Your task to perform on an android device: toggle data saver in the chrome app Image 0: 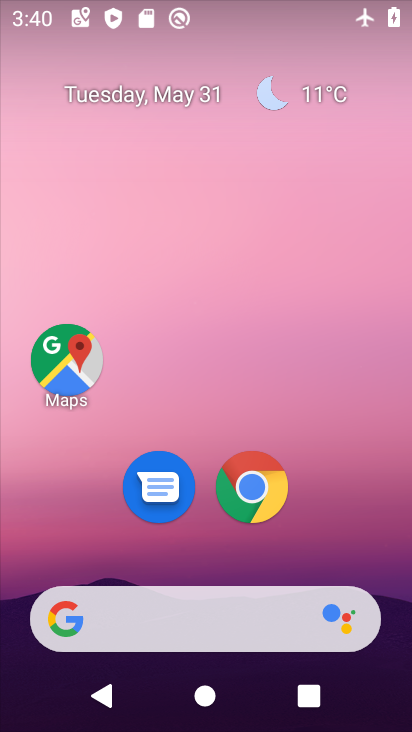
Step 0: click (252, 486)
Your task to perform on an android device: toggle data saver in the chrome app Image 1: 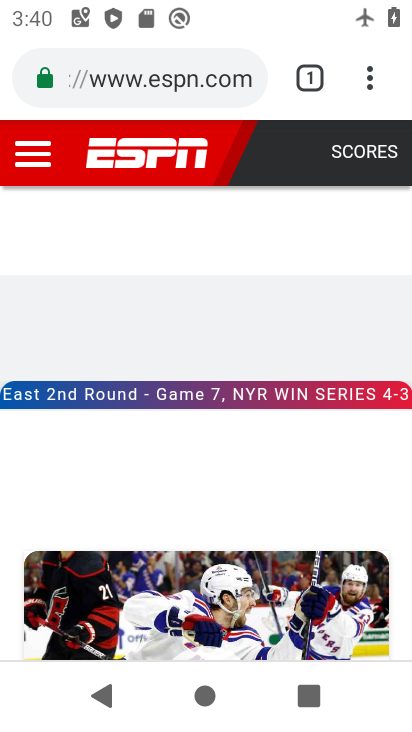
Step 1: click (367, 77)
Your task to perform on an android device: toggle data saver in the chrome app Image 2: 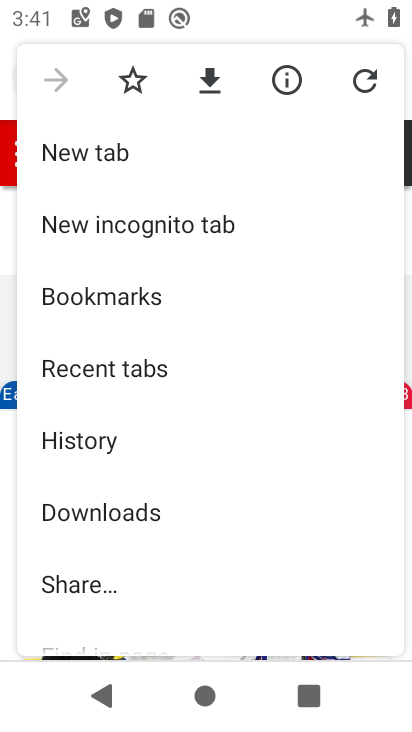
Step 2: drag from (135, 479) to (202, 369)
Your task to perform on an android device: toggle data saver in the chrome app Image 3: 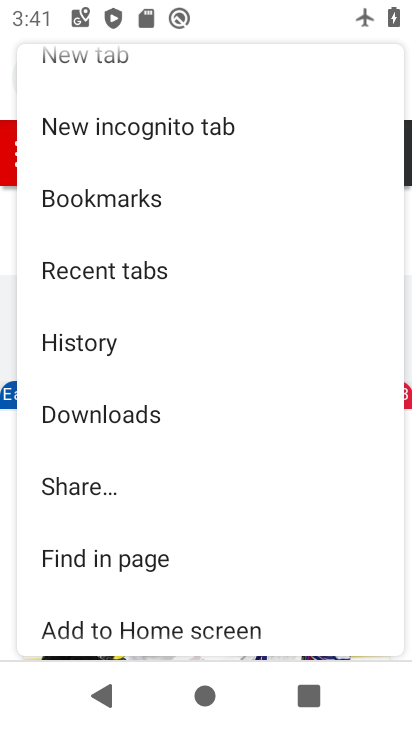
Step 3: drag from (143, 518) to (183, 428)
Your task to perform on an android device: toggle data saver in the chrome app Image 4: 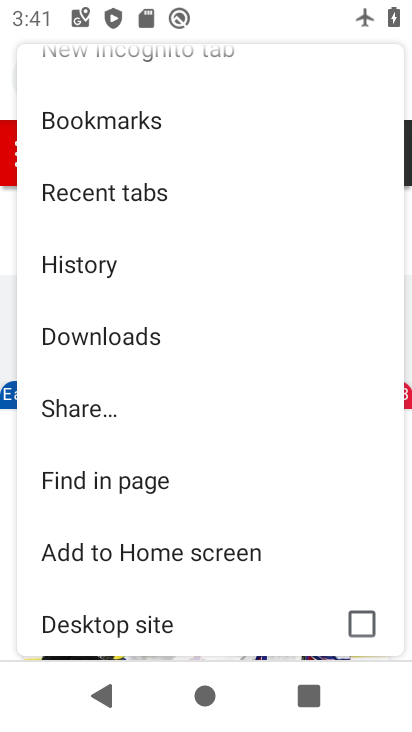
Step 4: drag from (129, 521) to (223, 413)
Your task to perform on an android device: toggle data saver in the chrome app Image 5: 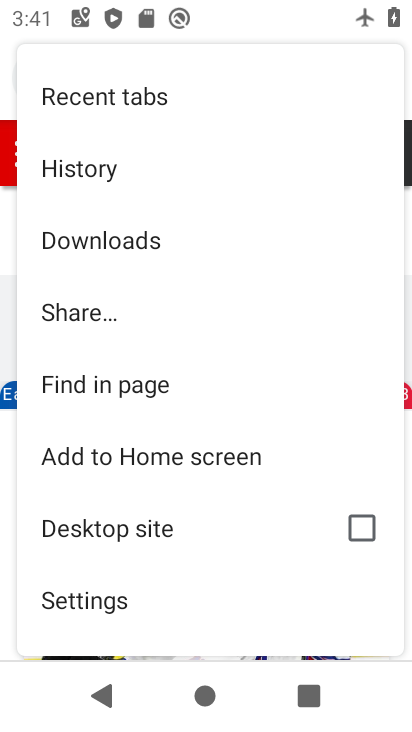
Step 5: drag from (135, 493) to (207, 385)
Your task to perform on an android device: toggle data saver in the chrome app Image 6: 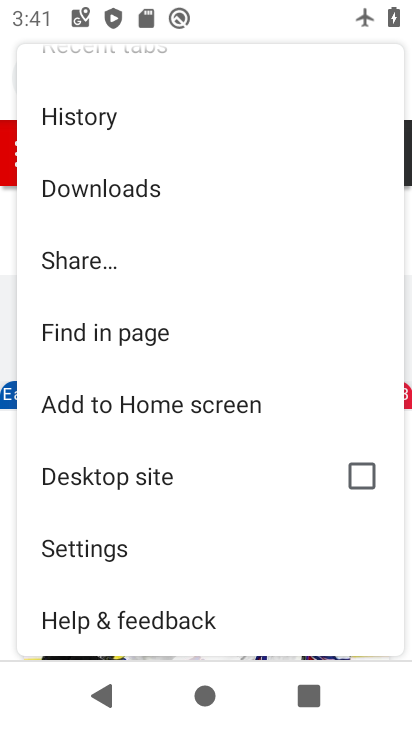
Step 6: click (105, 562)
Your task to perform on an android device: toggle data saver in the chrome app Image 7: 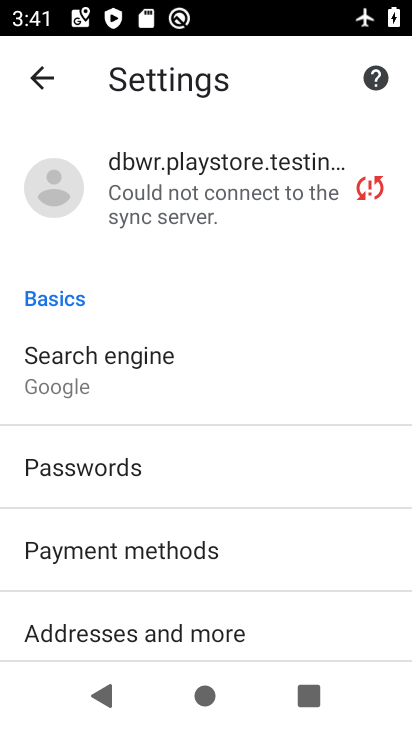
Step 7: drag from (126, 488) to (226, 362)
Your task to perform on an android device: toggle data saver in the chrome app Image 8: 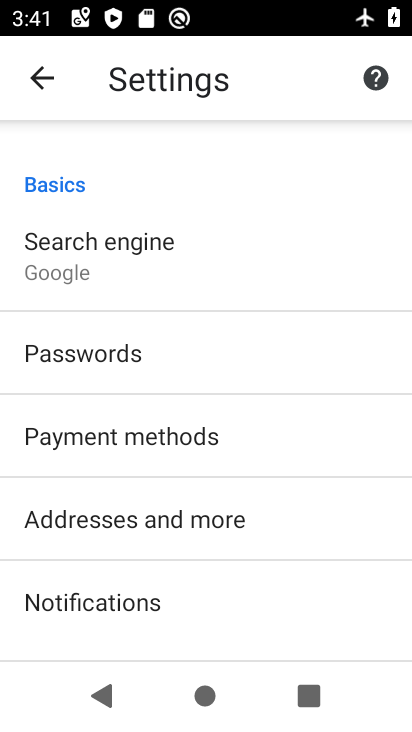
Step 8: drag from (145, 465) to (238, 357)
Your task to perform on an android device: toggle data saver in the chrome app Image 9: 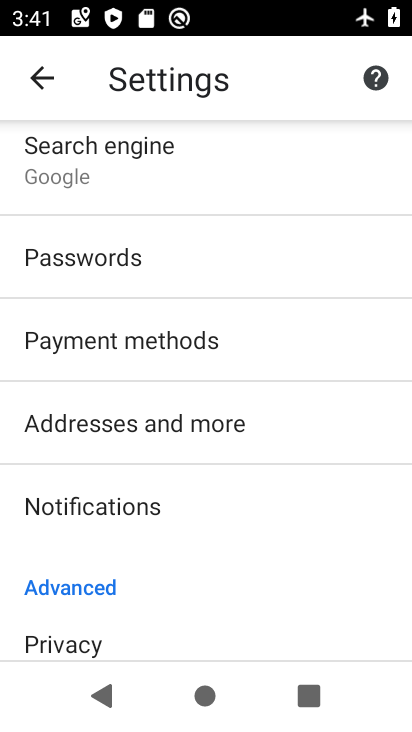
Step 9: drag from (115, 540) to (201, 408)
Your task to perform on an android device: toggle data saver in the chrome app Image 10: 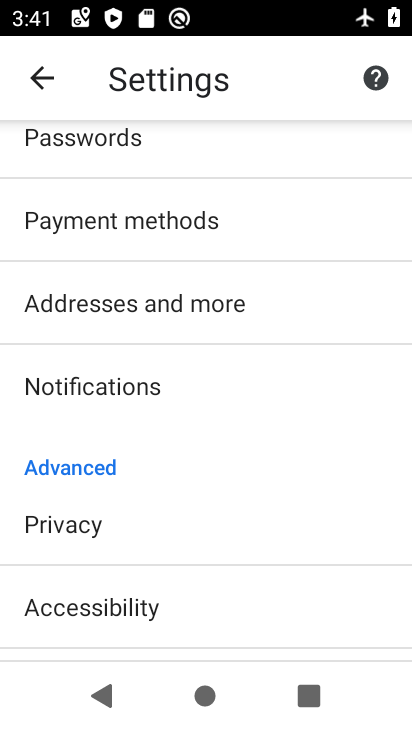
Step 10: drag from (115, 535) to (182, 408)
Your task to perform on an android device: toggle data saver in the chrome app Image 11: 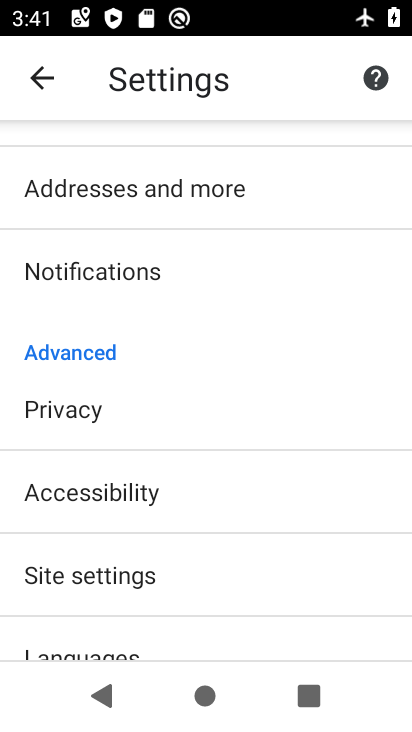
Step 11: drag from (124, 526) to (212, 416)
Your task to perform on an android device: toggle data saver in the chrome app Image 12: 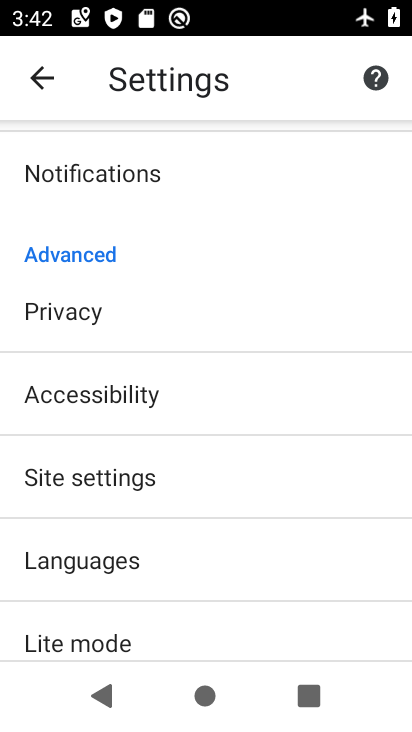
Step 12: drag from (146, 608) to (219, 513)
Your task to perform on an android device: toggle data saver in the chrome app Image 13: 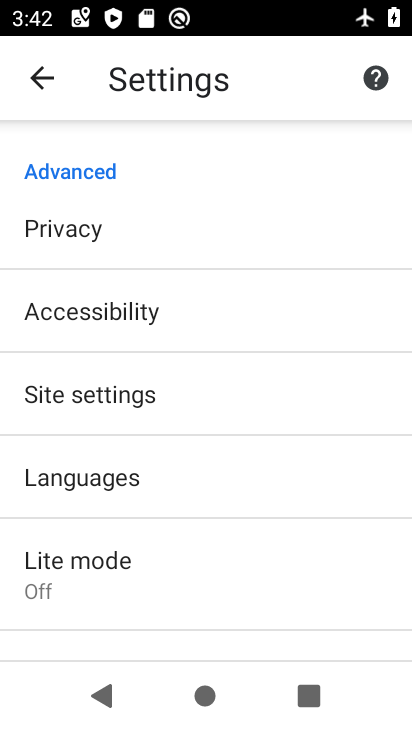
Step 13: click (123, 576)
Your task to perform on an android device: toggle data saver in the chrome app Image 14: 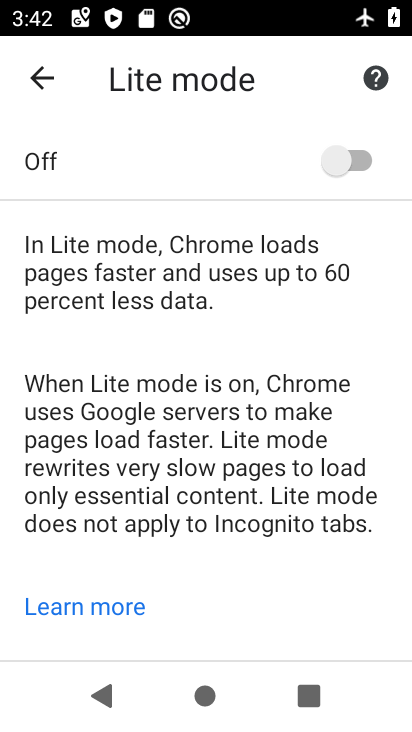
Step 14: click (336, 179)
Your task to perform on an android device: toggle data saver in the chrome app Image 15: 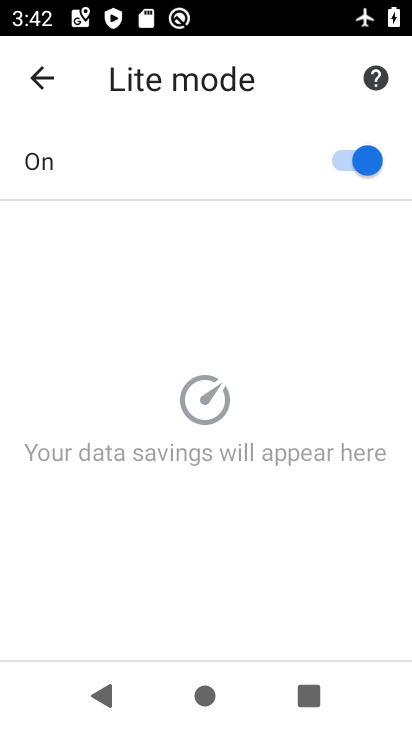
Step 15: task complete